Your task to perform on an android device: delete browsing data in the chrome app Image 0: 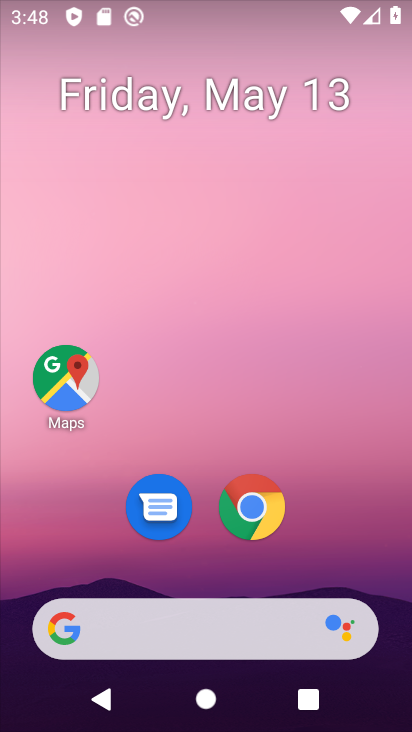
Step 0: click (275, 524)
Your task to perform on an android device: delete browsing data in the chrome app Image 1: 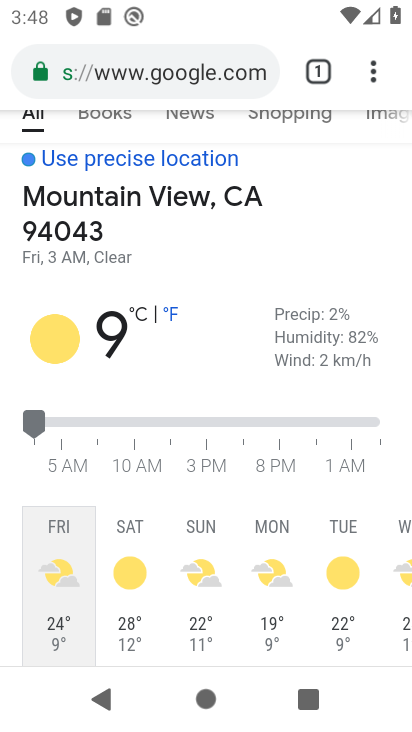
Step 1: drag from (374, 83) to (188, 128)
Your task to perform on an android device: delete browsing data in the chrome app Image 2: 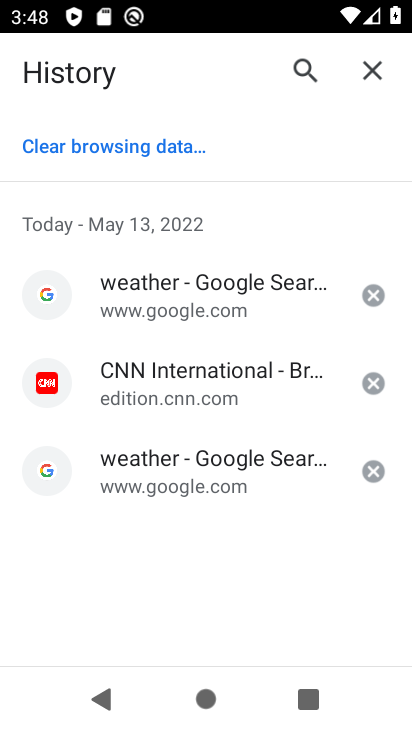
Step 2: click (125, 143)
Your task to perform on an android device: delete browsing data in the chrome app Image 3: 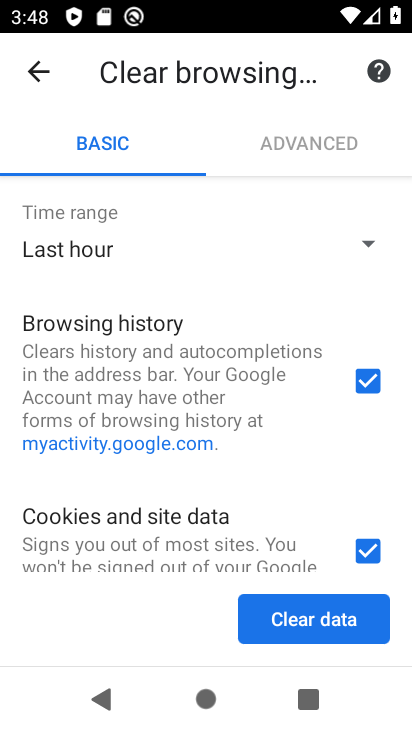
Step 3: click (342, 620)
Your task to perform on an android device: delete browsing data in the chrome app Image 4: 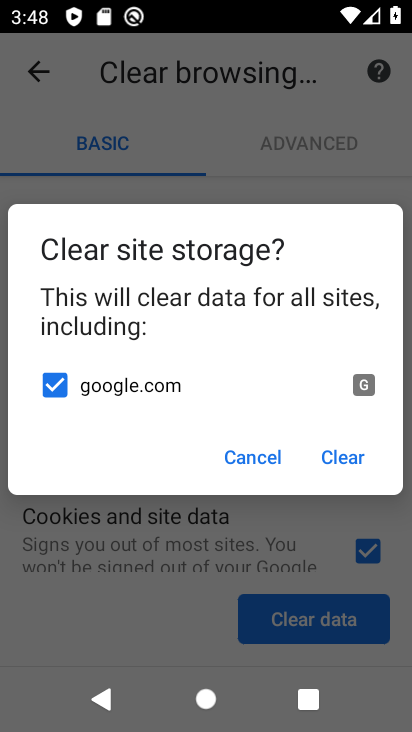
Step 4: click (344, 480)
Your task to perform on an android device: delete browsing data in the chrome app Image 5: 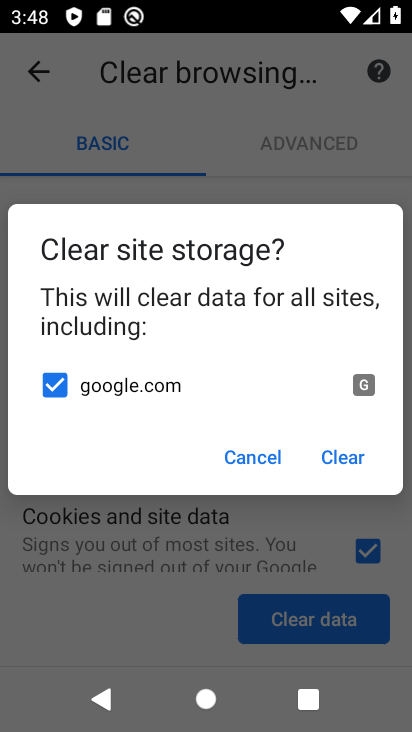
Step 5: click (348, 465)
Your task to perform on an android device: delete browsing data in the chrome app Image 6: 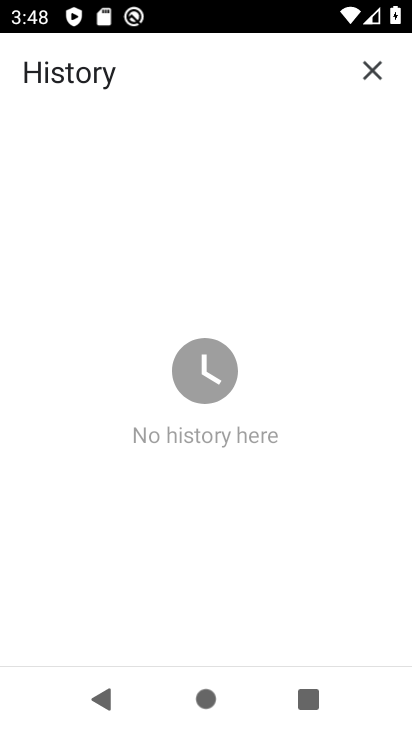
Step 6: task complete